Your task to perform on an android device: move an email to a new category in the gmail app Image 0: 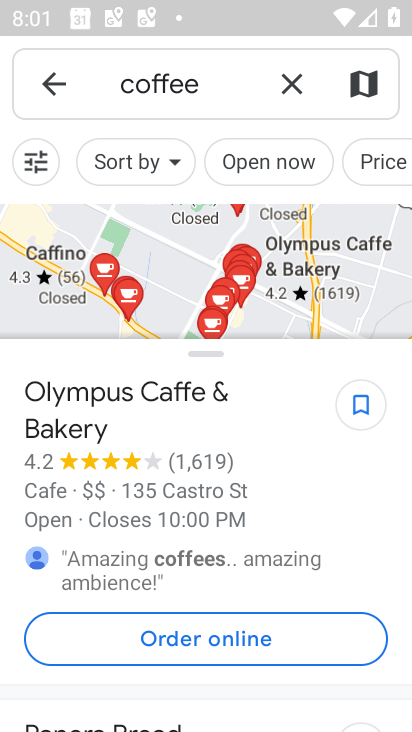
Step 0: press home button
Your task to perform on an android device: move an email to a new category in the gmail app Image 1: 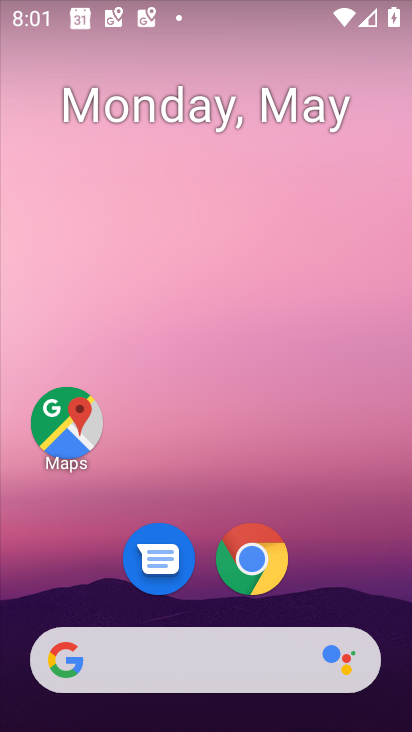
Step 1: drag from (390, 677) to (311, 53)
Your task to perform on an android device: move an email to a new category in the gmail app Image 2: 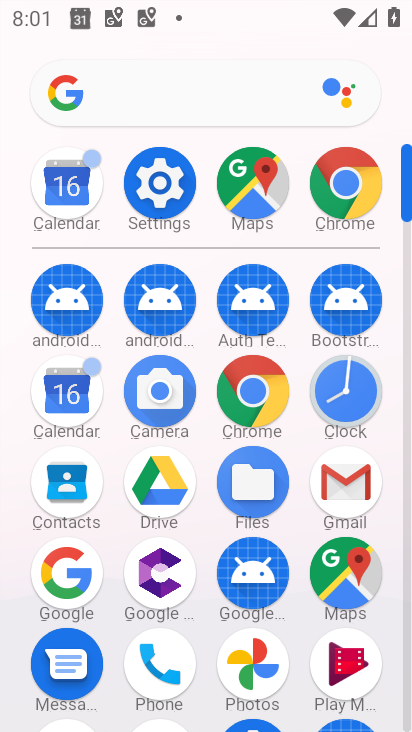
Step 2: click (351, 499)
Your task to perform on an android device: move an email to a new category in the gmail app Image 3: 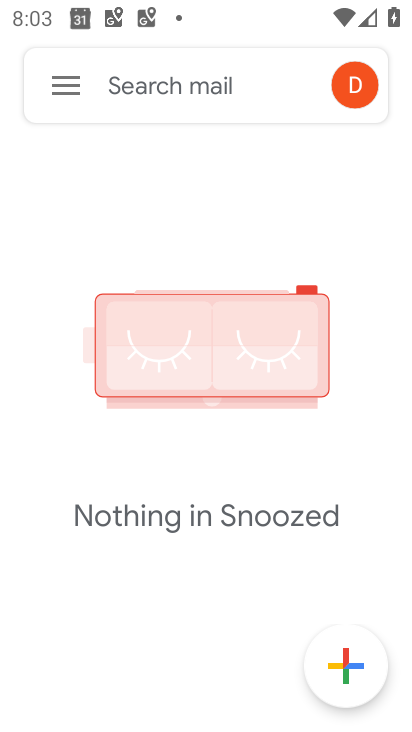
Step 3: task complete